Your task to perform on an android device: Toggle the flashlight Image 0: 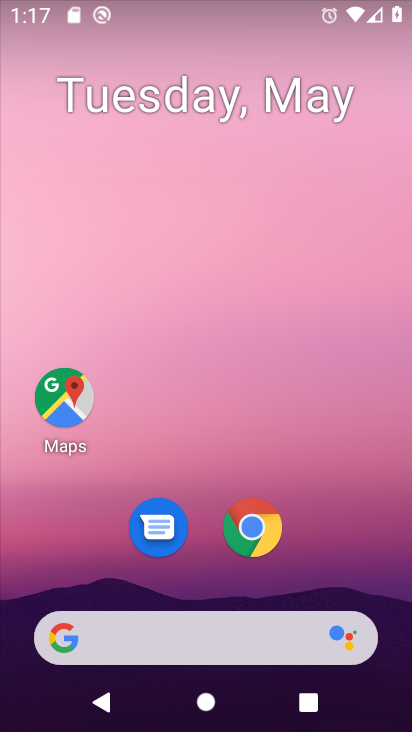
Step 0: drag from (271, 20) to (307, 594)
Your task to perform on an android device: Toggle the flashlight Image 1: 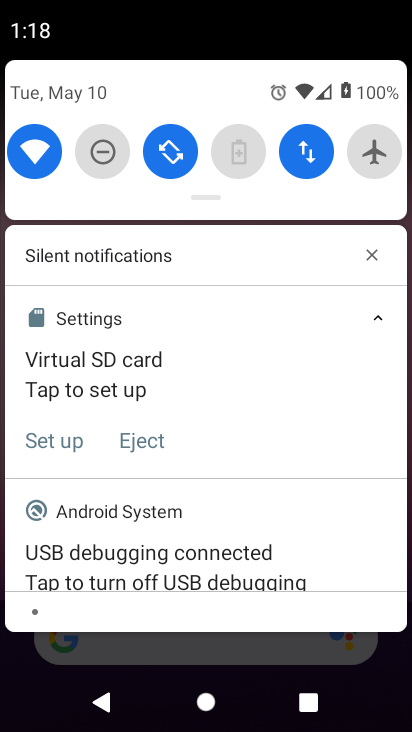
Step 1: task complete